Your task to perform on an android device: add a contact in the contacts app Image 0: 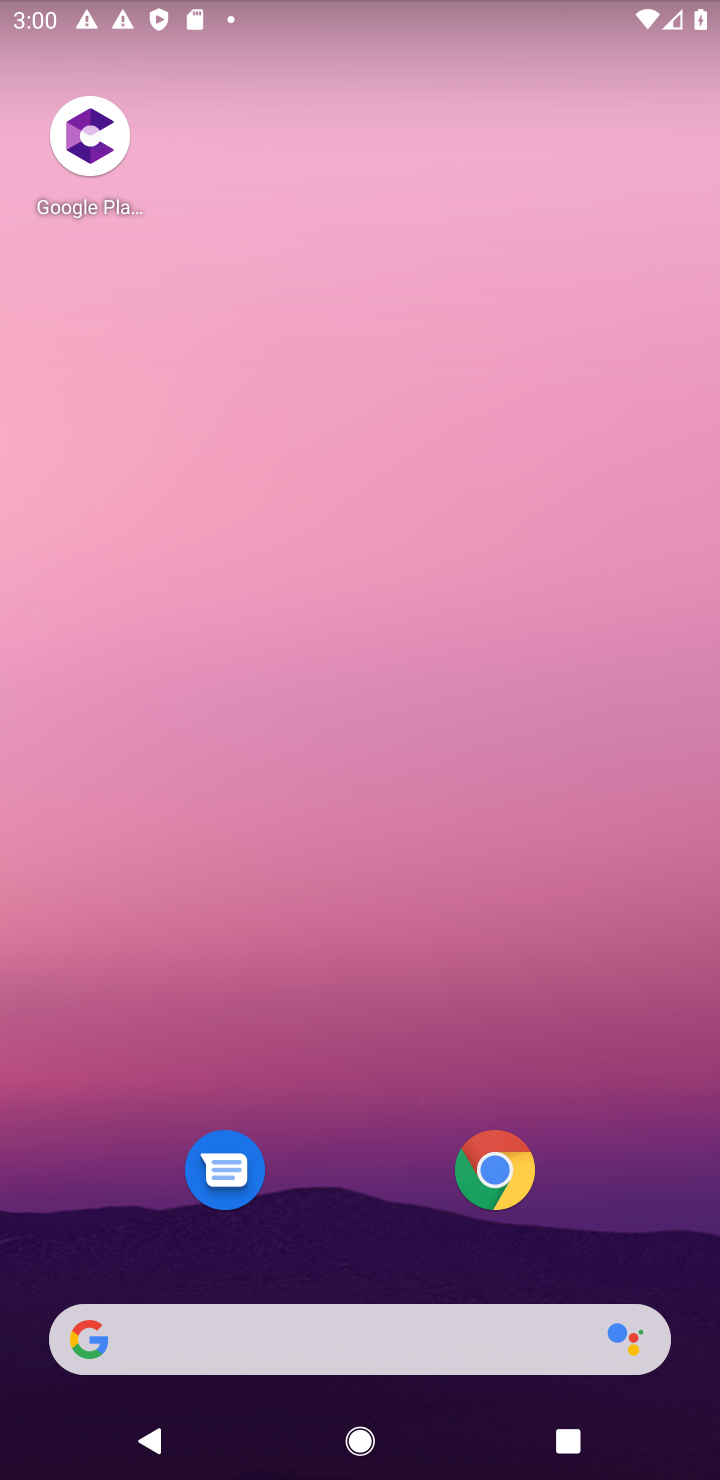
Step 0: drag from (592, 395) to (579, 132)
Your task to perform on an android device: add a contact in the contacts app Image 1: 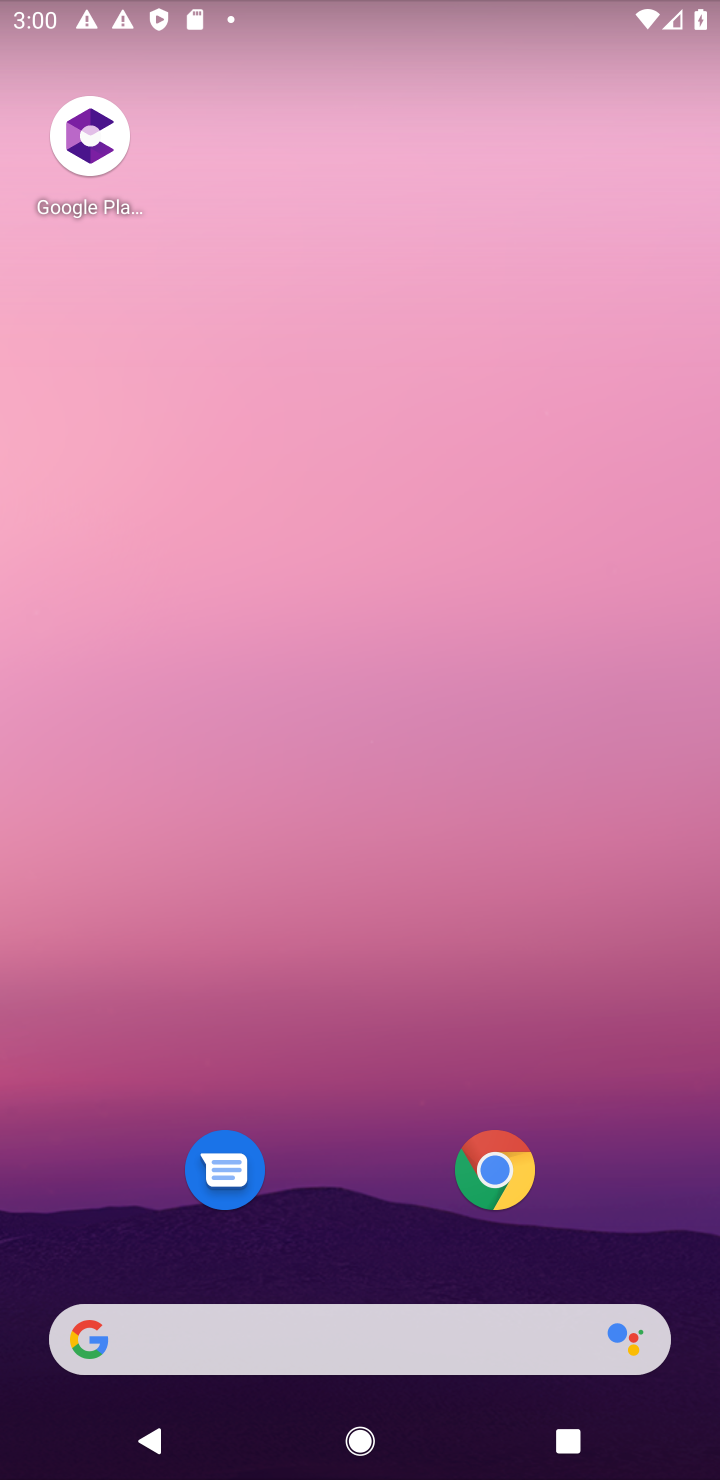
Step 1: drag from (685, 1261) to (535, 309)
Your task to perform on an android device: add a contact in the contacts app Image 2: 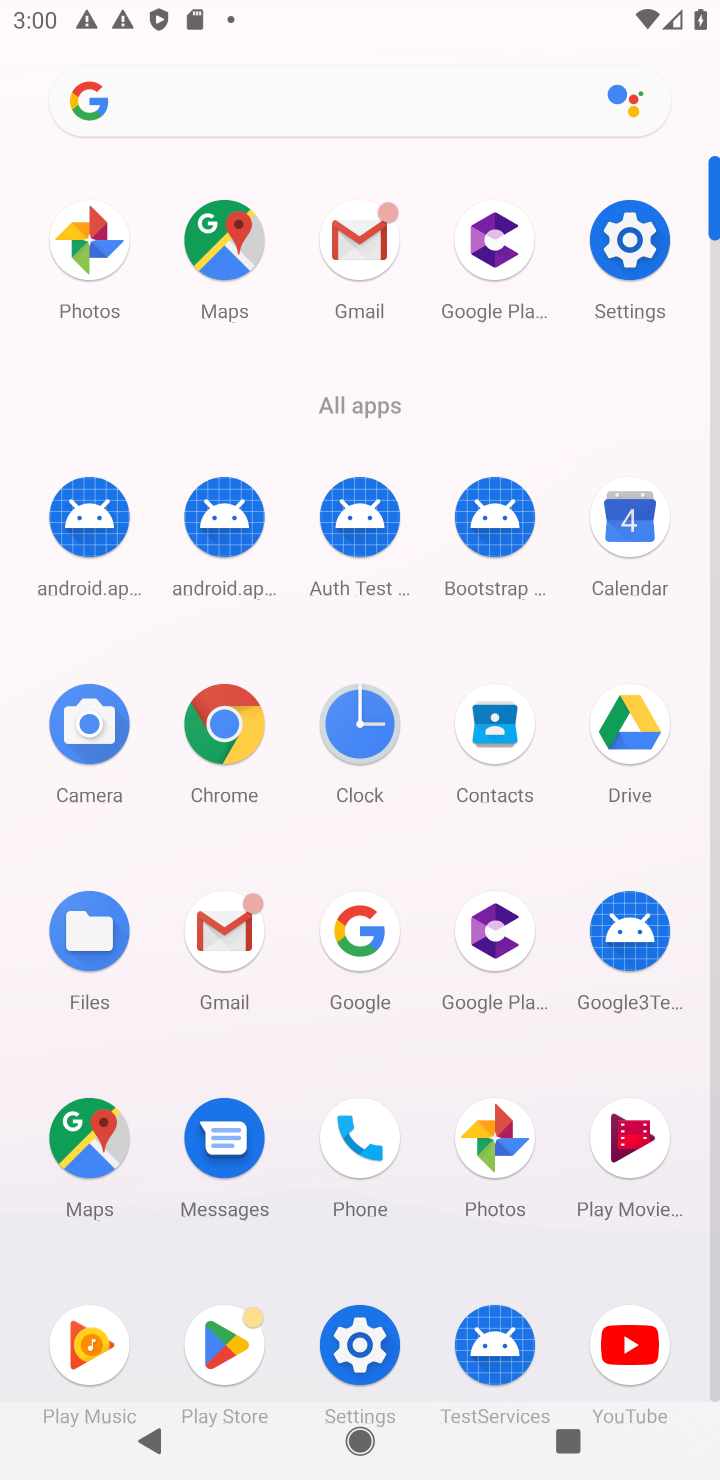
Step 2: click (489, 719)
Your task to perform on an android device: add a contact in the contacts app Image 3: 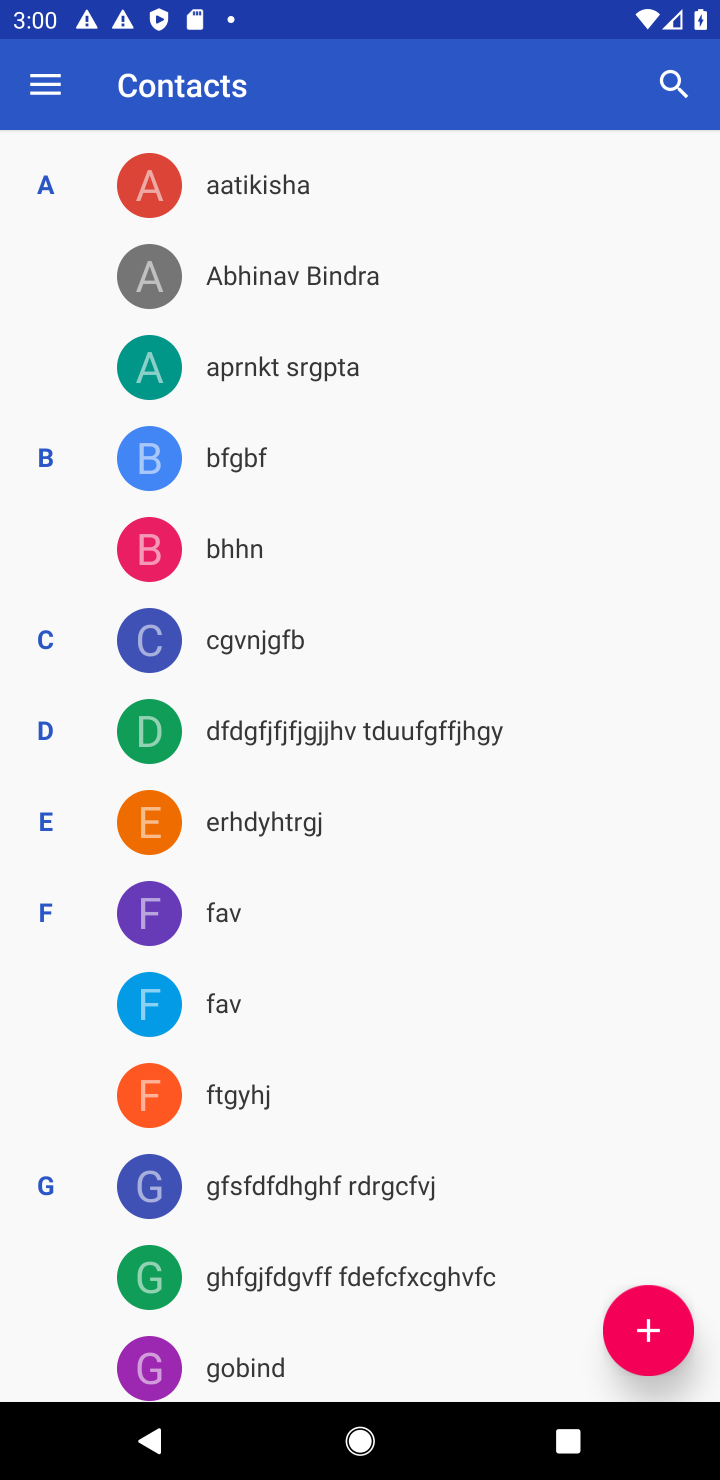
Step 3: click (645, 1328)
Your task to perform on an android device: add a contact in the contacts app Image 4: 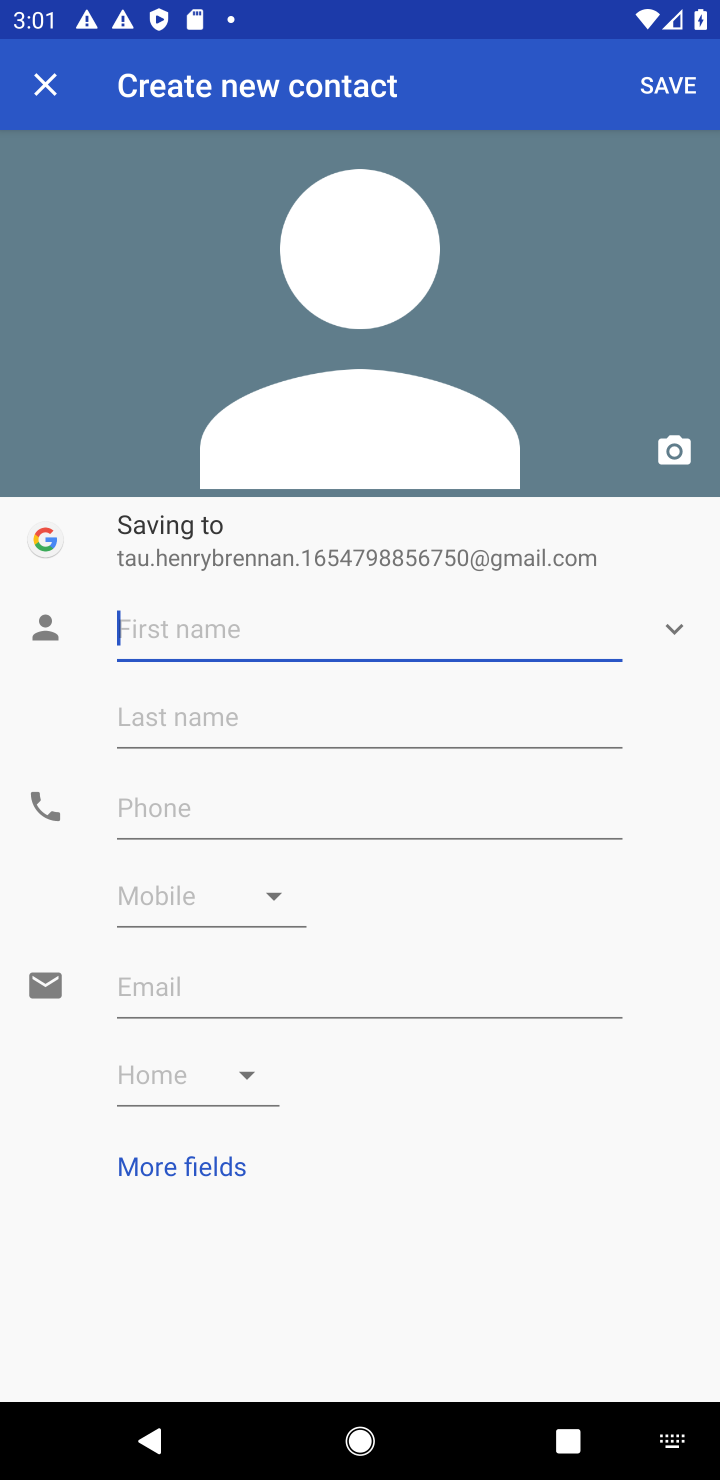
Step 4: type "mhrdgdjiop"
Your task to perform on an android device: add a contact in the contacts app Image 5: 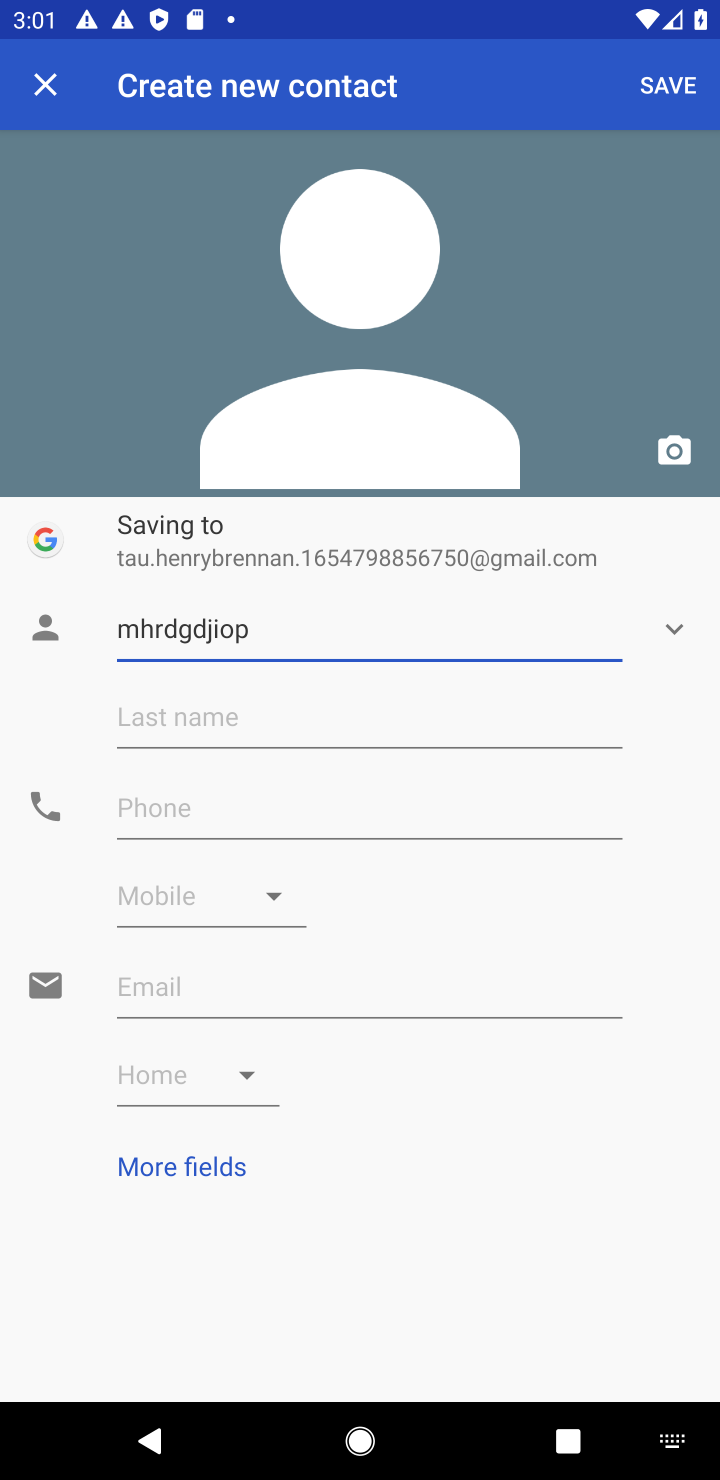
Step 5: click (216, 809)
Your task to perform on an android device: add a contact in the contacts app Image 6: 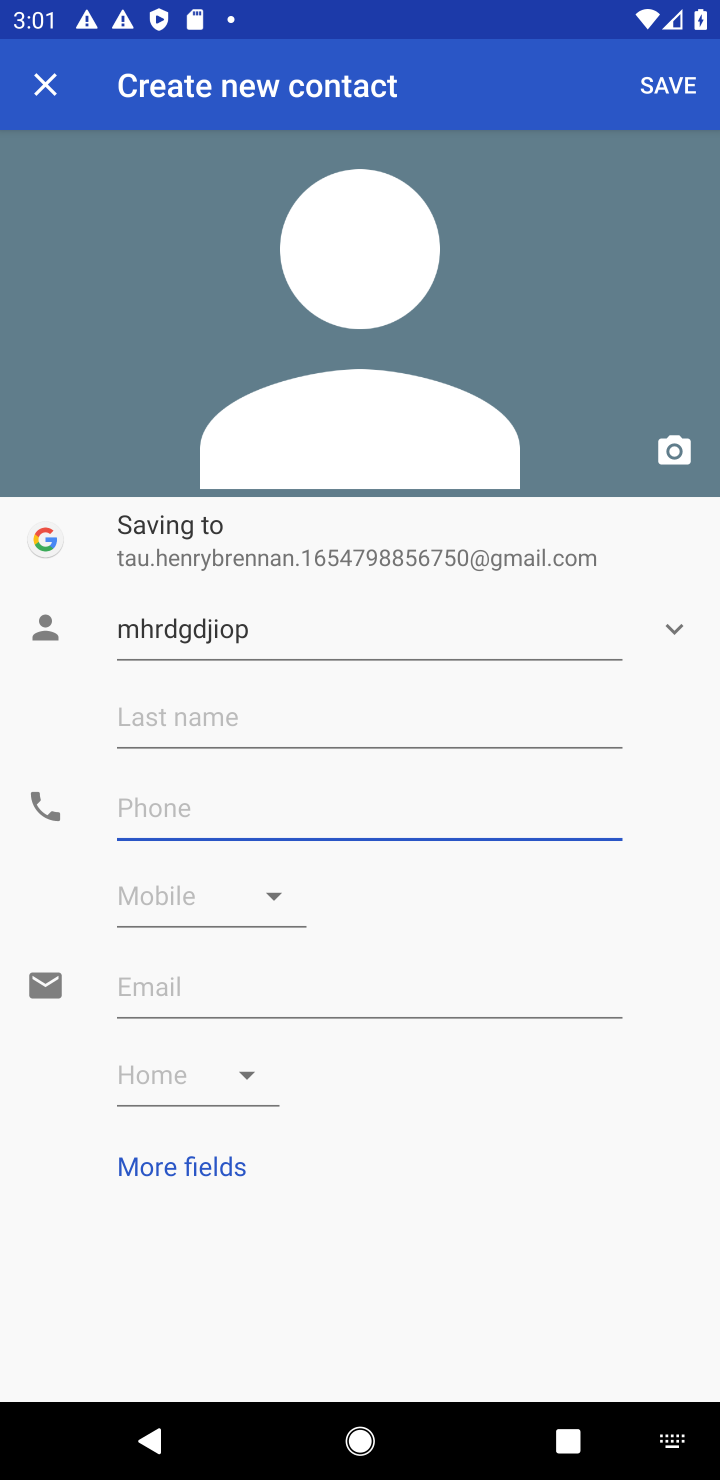
Step 6: type "0987645343"
Your task to perform on an android device: add a contact in the contacts app Image 7: 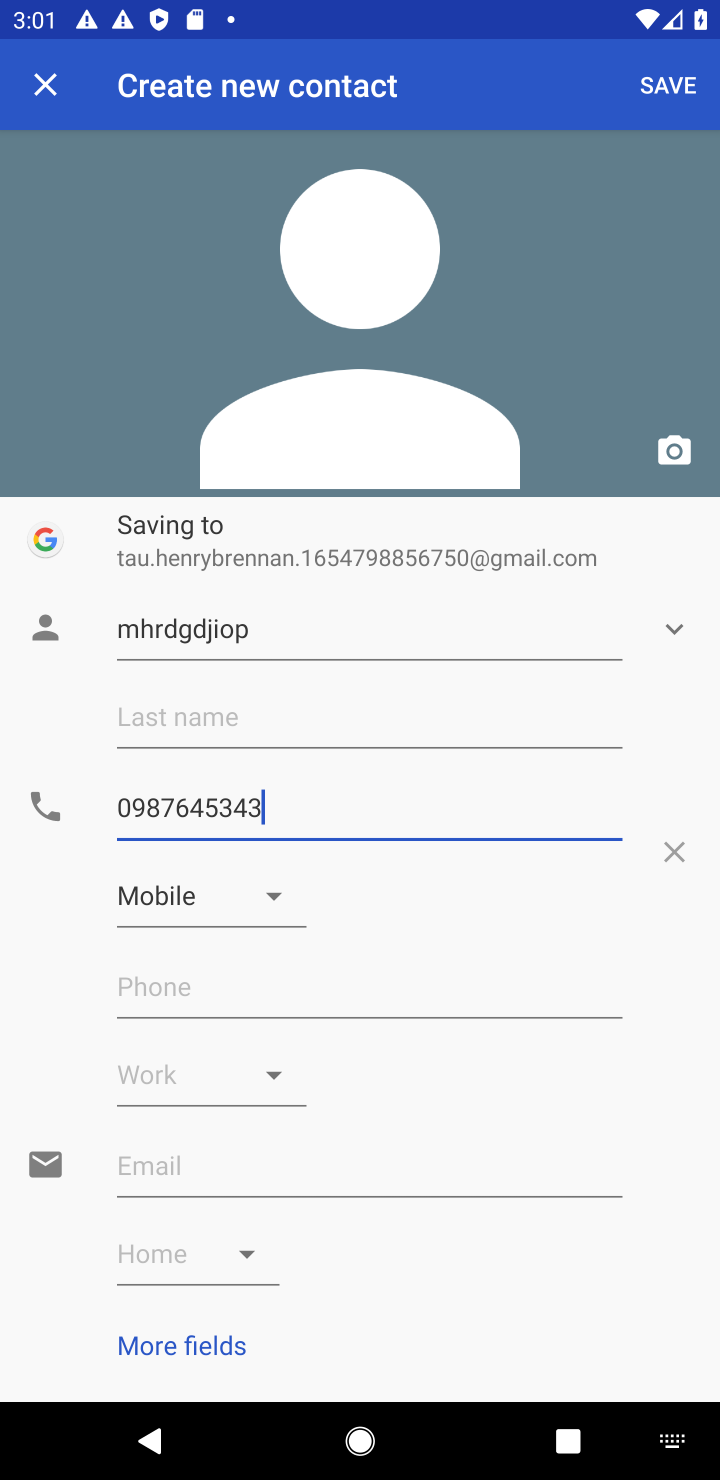
Step 7: click (667, 84)
Your task to perform on an android device: add a contact in the contacts app Image 8: 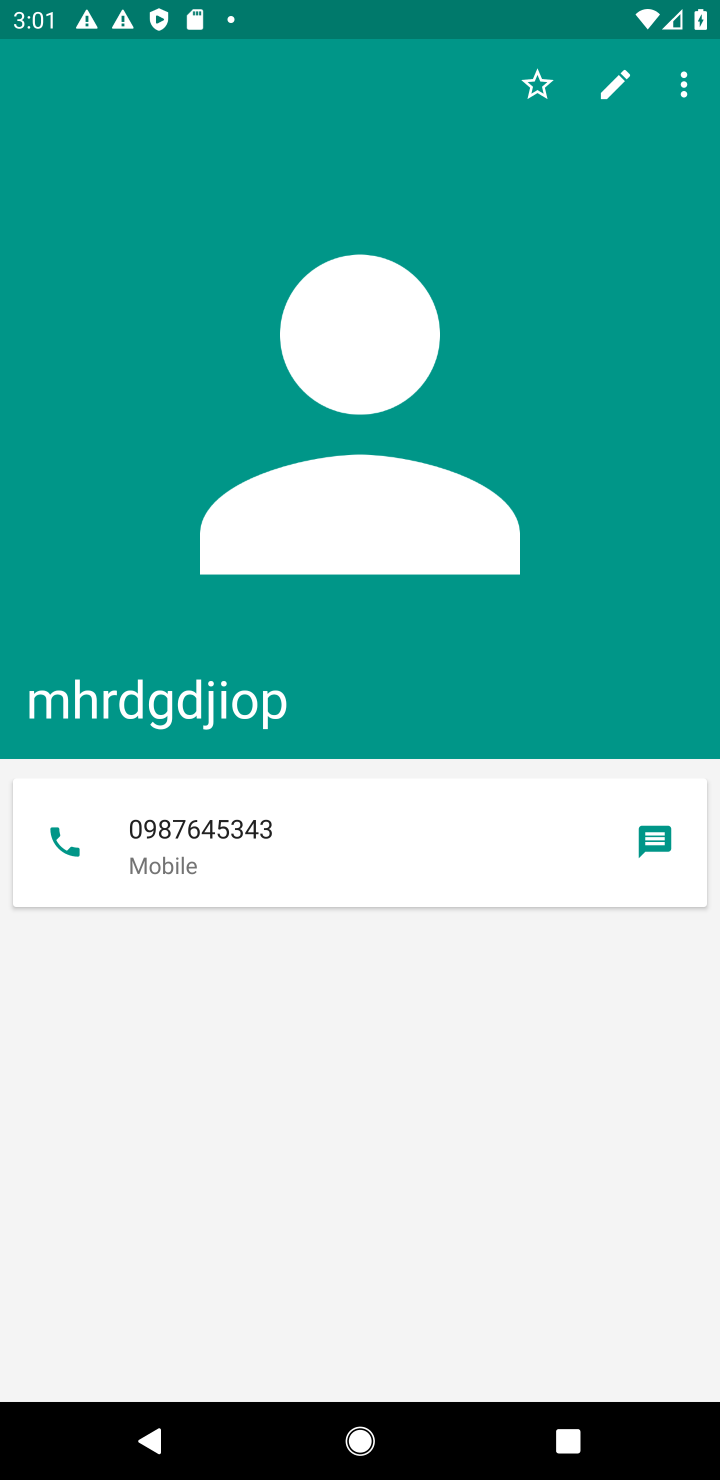
Step 8: task complete